Your task to perform on an android device: create a new album in the google photos Image 0: 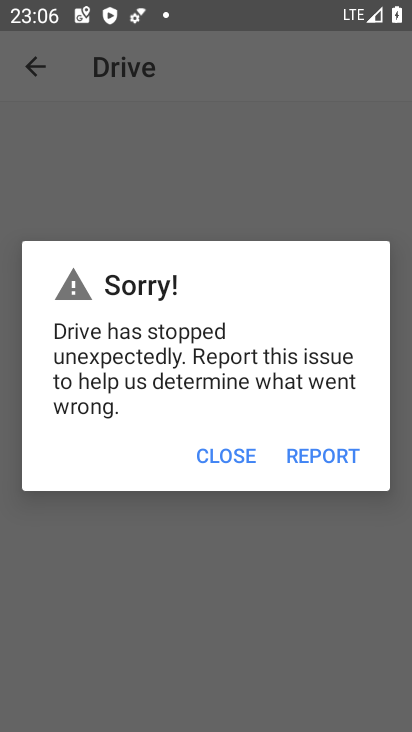
Step 0: press home button
Your task to perform on an android device: create a new album in the google photos Image 1: 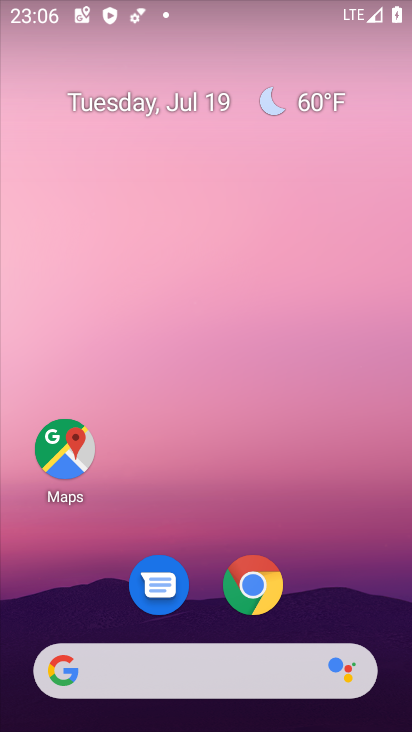
Step 1: drag from (316, 601) to (392, 29)
Your task to perform on an android device: create a new album in the google photos Image 2: 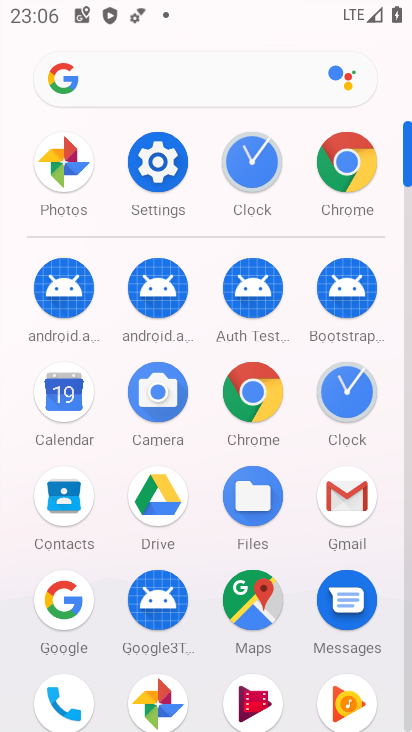
Step 2: click (68, 151)
Your task to perform on an android device: create a new album in the google photos Image 3: 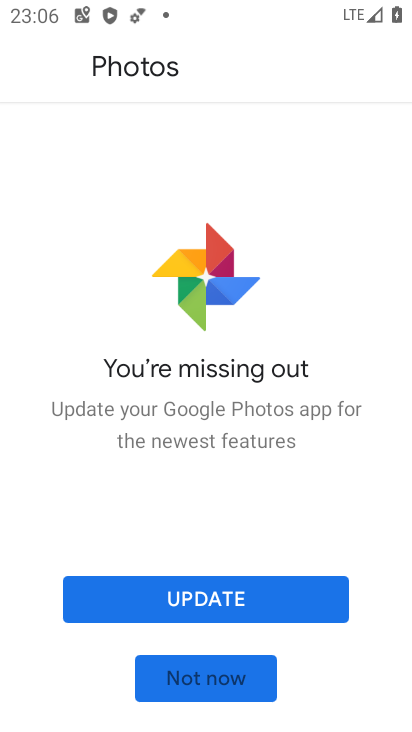
Step 3: click (209, 678)
Your task to perform on an android device: create a new album in the google photos Image 4: 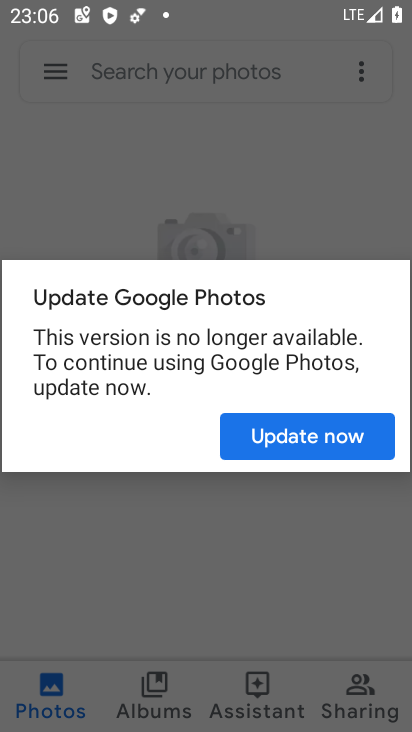
Step 4: click (341, 439)
Your task to perform on an android device: create a new album in the google photos Image 5: 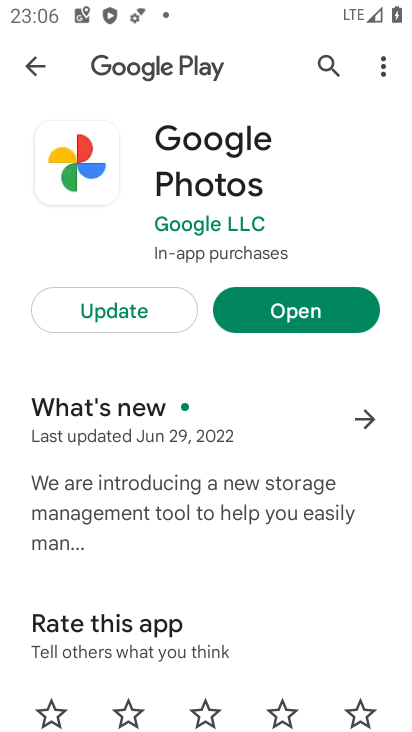
Step 5: click (321, 314)
Your task to perform on an android device: create a new album in the google photos Image 6: 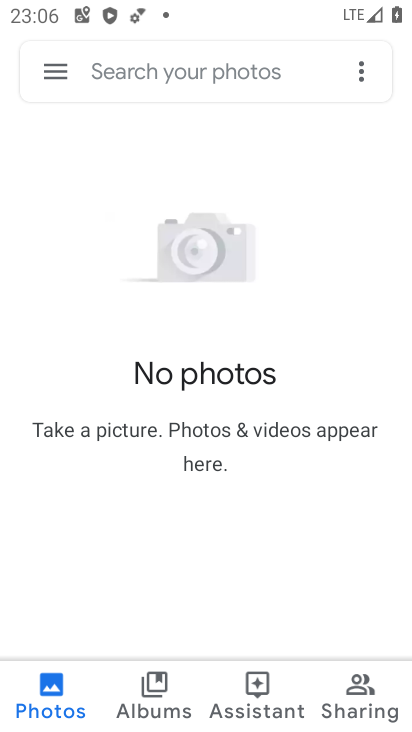
Step 6: click (148, 708)
Your task to perform on an android device: create a new album in the google photos Image 7: 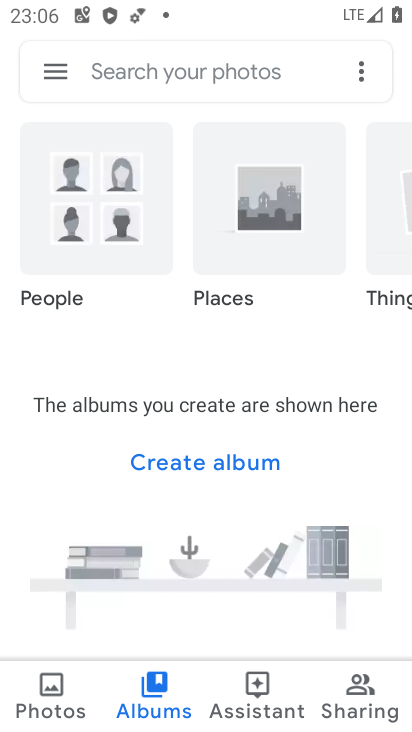
Step 7: click (239, 461)
Your task to perform on an android device: create a new album in the google photos Image 8: 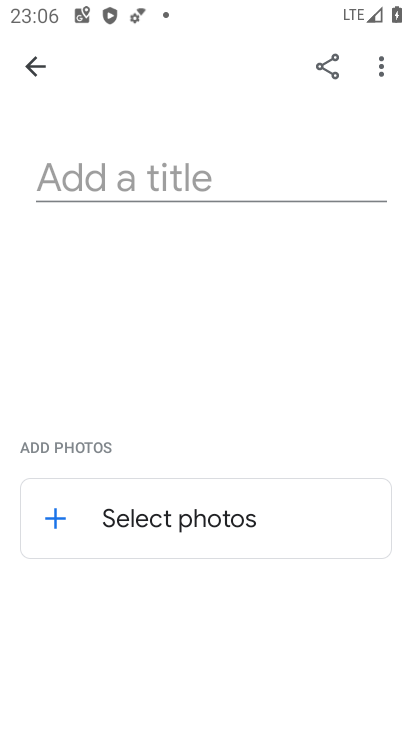
Step 8: type "Ayodhya"
Your task to perform on an android device: create a new album in the google photos Image 9: 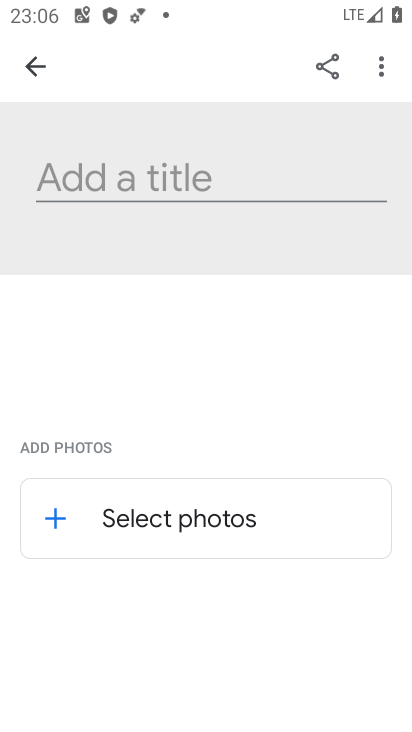
Step 9: click (238, 168)
Your task to perform on an android device: create a new album in the google photos Image 10: 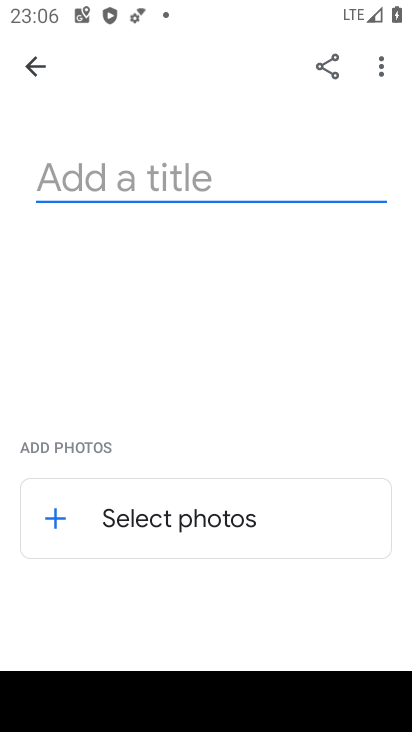
Step 10: type "Ayodhya"
Your task to perform on an android device: create a new album in the google photos Image 11: 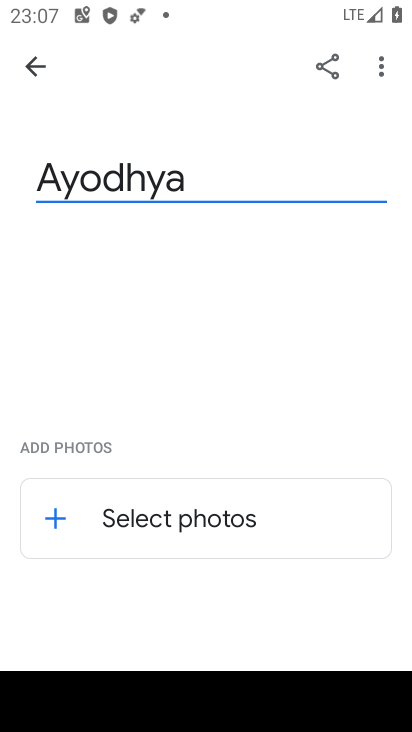
Step 11: click (59, 510)
Your task to perform on an android device: create a new album in the google photos Image 12: 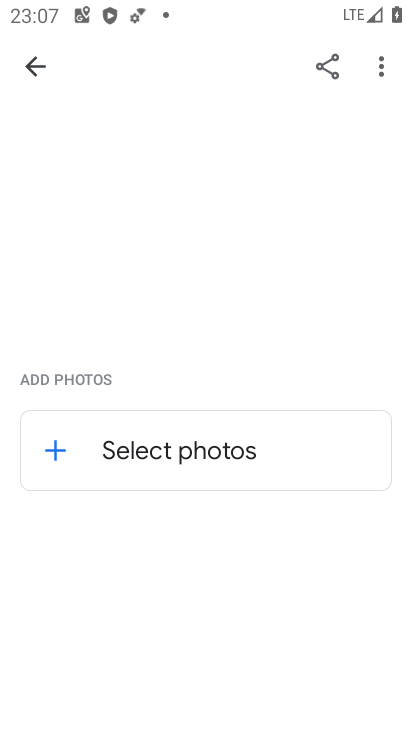
Step 12: click (60, 446)
Your task to perform on an android device: create a new album in the google photos Image 13: 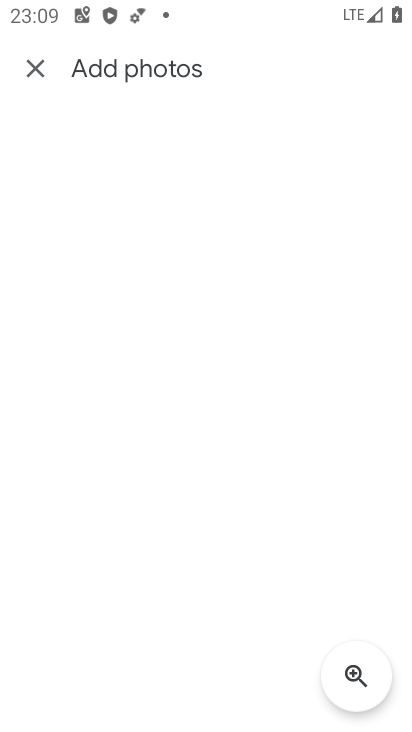
Step 13: task complete